Your task to perform on an android device: What's the weather today? Image 0: 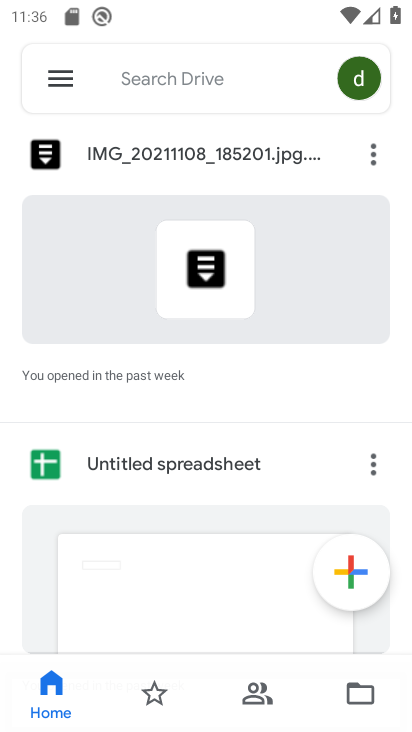
Step 0: press home button
Your task to perform on an android device: What's the weather today? Image 1: 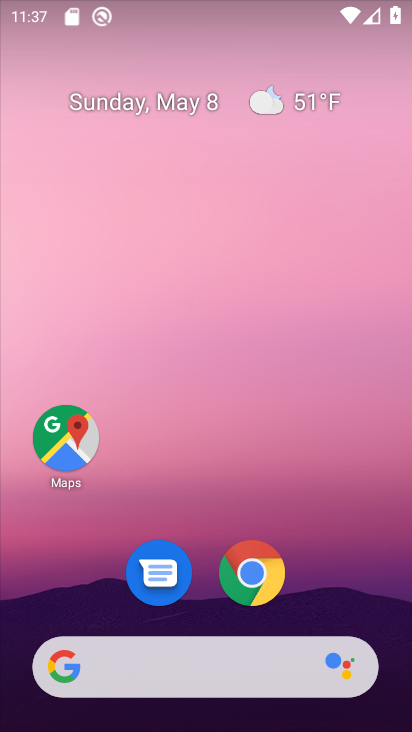
Step 1: drag from (165, 637) to (131, 214)
Your task to perform on an android device: What's the weather today? Image 2: 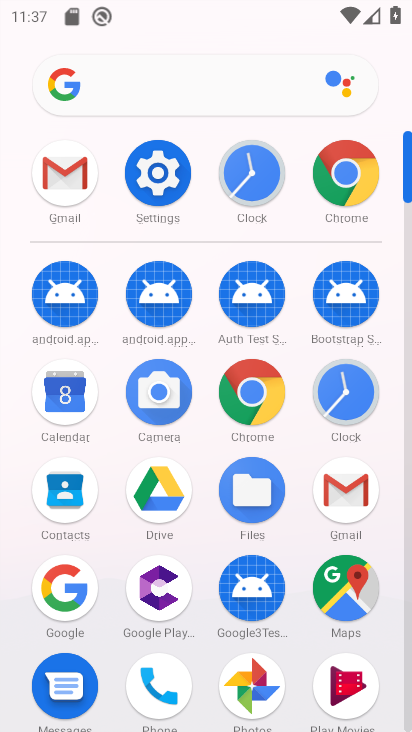
Step 2: click (73, 593)
Your task to perform on an android device: What's the weather today? Image 3: 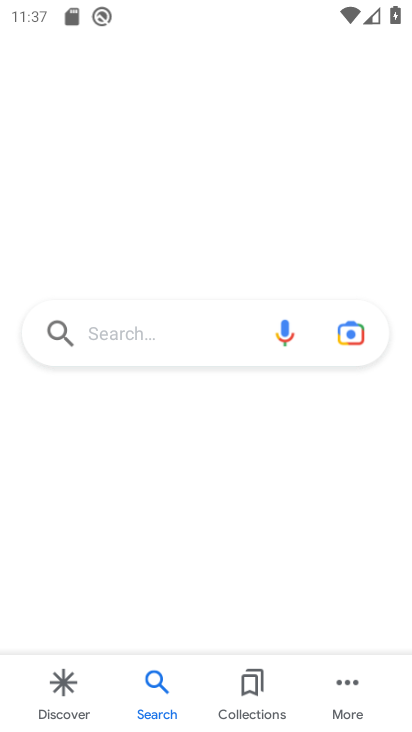
Step 3: click (134, 335)
Your task to perform on an android device: What's the weather today? Image 4: 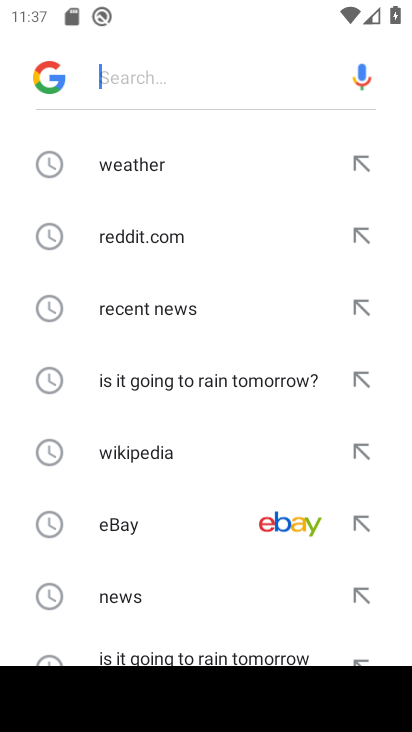
Step 4: click (120, 157)
Your task to perform on an android device: What's the weather today? Image 5: 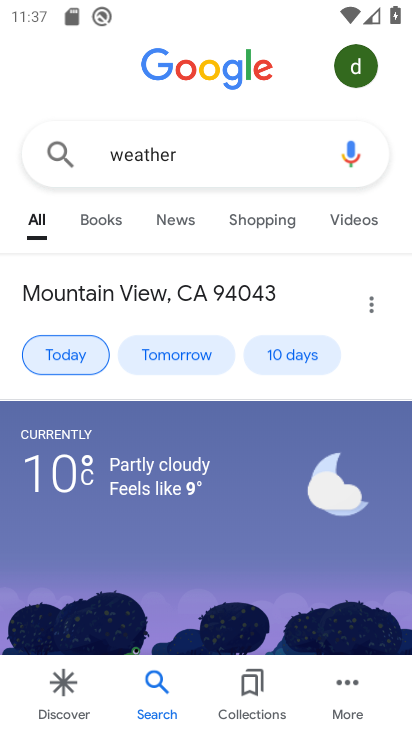
Step 5: task complete